Your task to perform on an android device: Check the news Image 0: 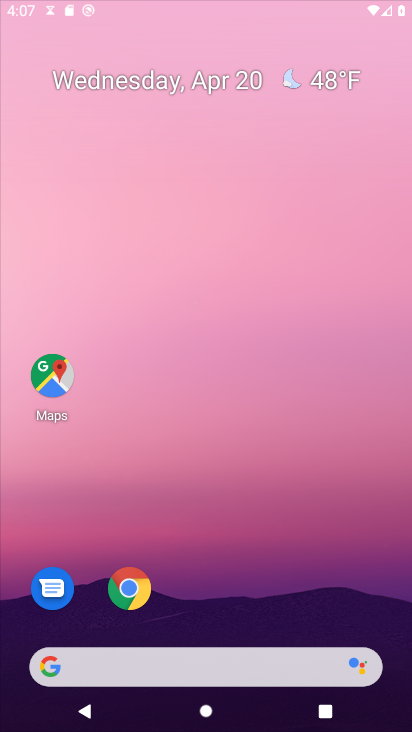
Step 0: click (410, 537)
Your task to perform on an android device: Check the news Image 1: 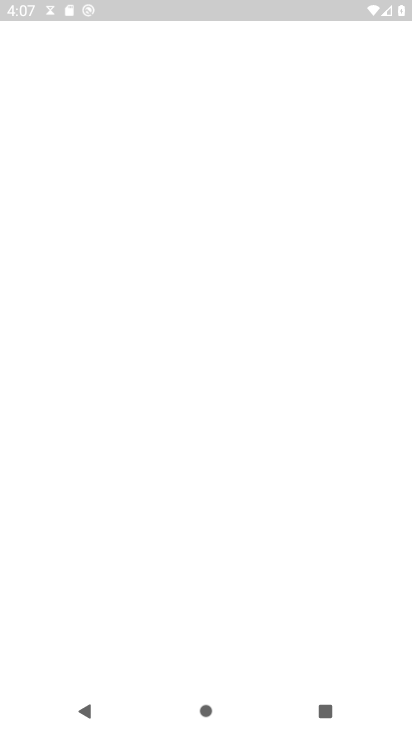
Step 1: task complete